Your task to perform on an android device: check battery use Image 0: 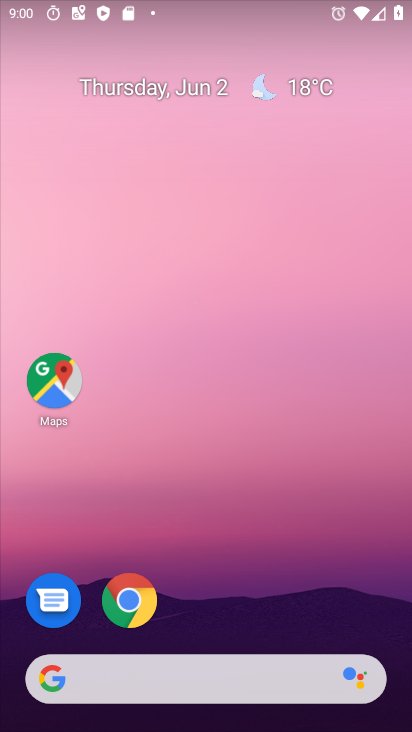
Step 0: drag from (337, 586) to (352, 338)
Your task to perform on an android device: check battery use Image 1: 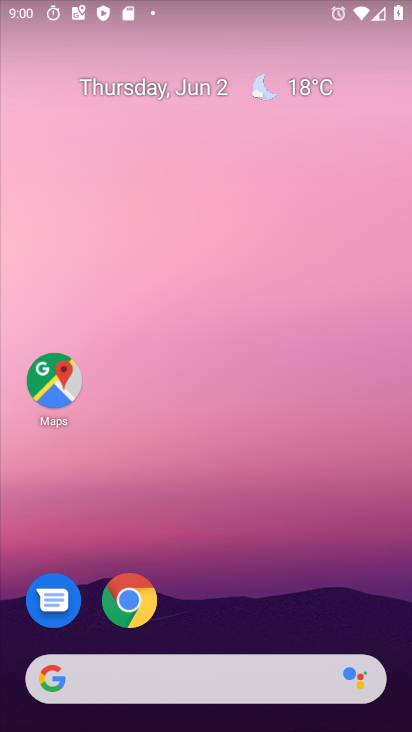
Step 1: drag from (360, 593) to (370, 163)
Your task to perform on an android device: check battery use Image 2: 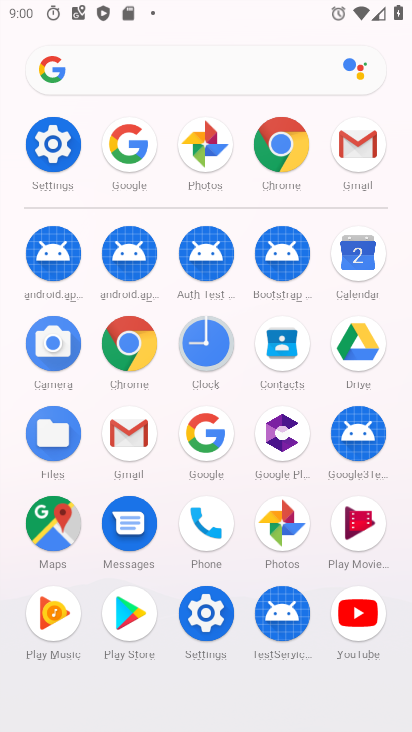
Step 2: click (60, 160)
Your task to perform on an android device: check battery use Image 3: 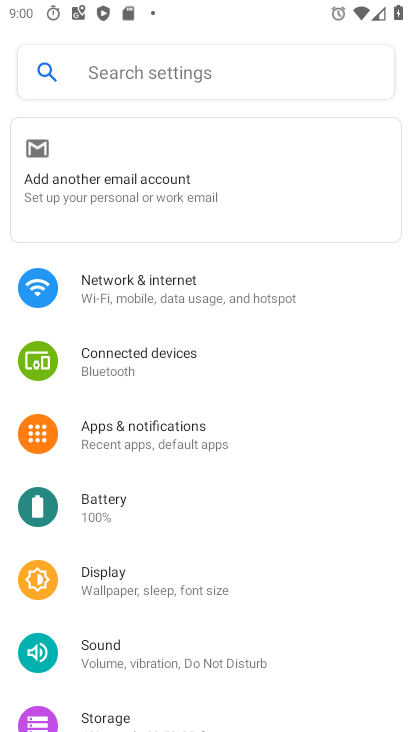
Step 3: click (142, 493)
Your task to perform on an android device: check battery use Image 4: 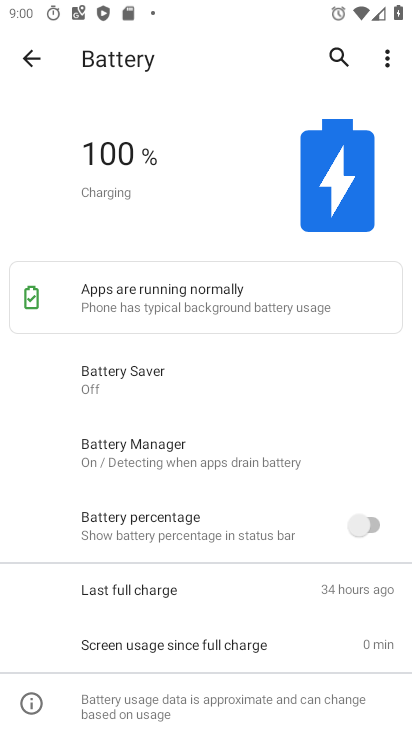
Step 4: click (388, 63)
Your task to perform on an android device: check battery use Image 5: 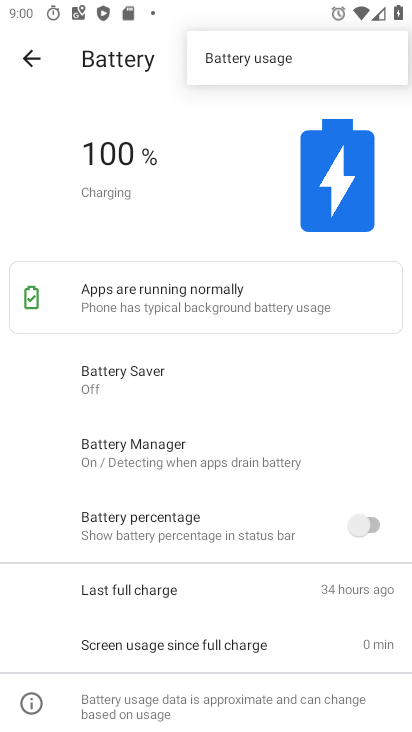
Step 5: click (339, 63)
Your task to perform on an android device: check battery use Image 6: 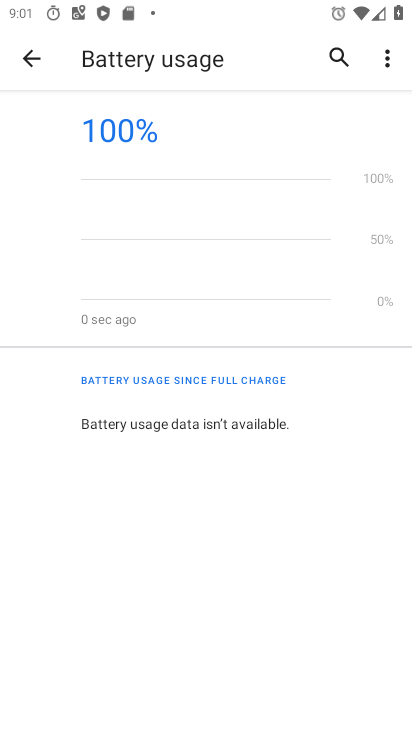
Step 6: task complete